Your task to perform on an android device: Is it going to rain today? Image 0: 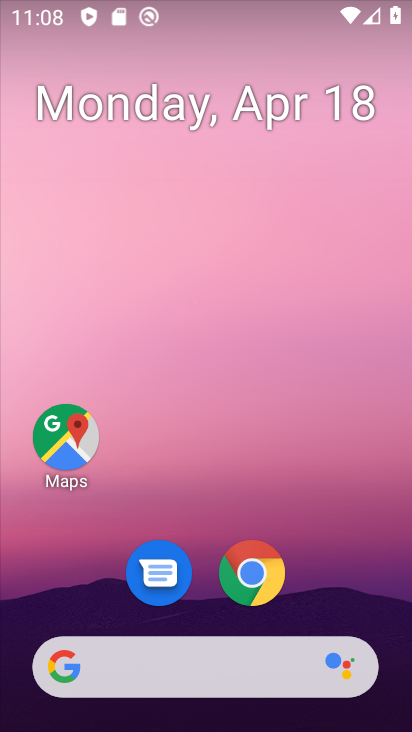
Step 0: click (180, 667)
Your task to perform on an android device: Is it going to rain today? Image 1: 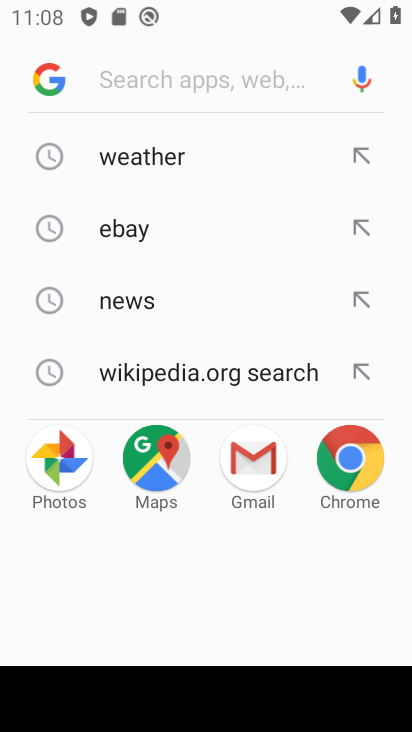
Step 1: type "Is it going to rain today?"
Your task to perform on an android device: Is it going to rain today? Image 2: 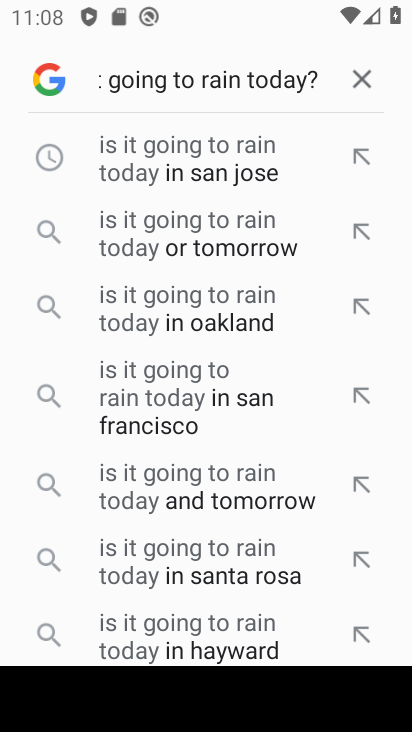
Step 2: click (243, 152)
Your task to perform on an android device: Is it going to rain today? Image 3: 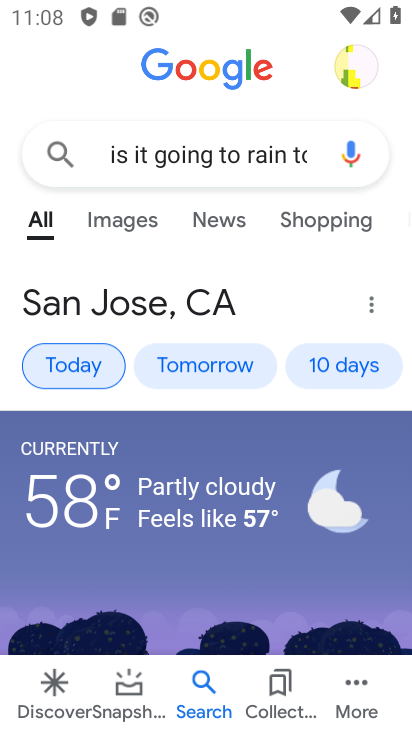
Step 3: task complete